Your task to perform on an android device: change notifications settings Image 0: 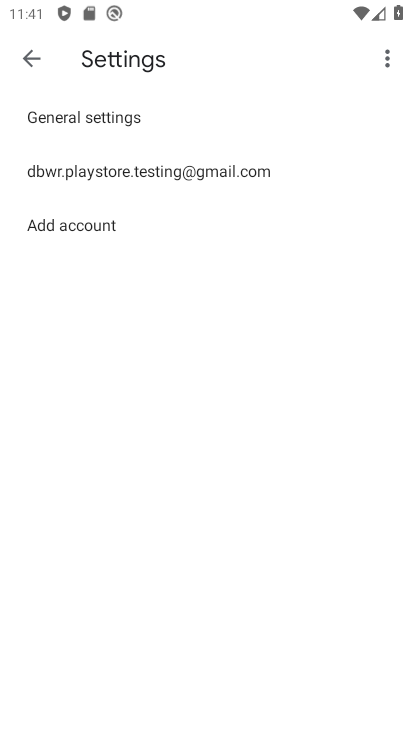
Step 0: press home button
Your task to perform on an android device: change notifications settings Image 1: 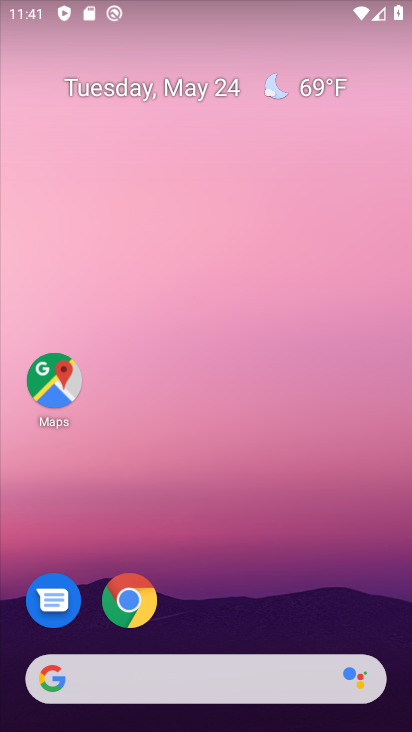
Step 1: drag from (358, 616) to (373, 251)
Your task to perform on an android device: change notifications settings Image 2: 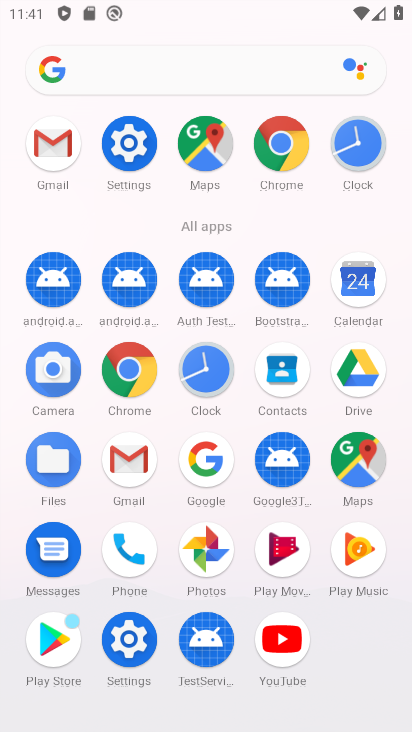
Step 2: click (143, 145)
Your task to perform on an android device: change notifications settings Image 3: 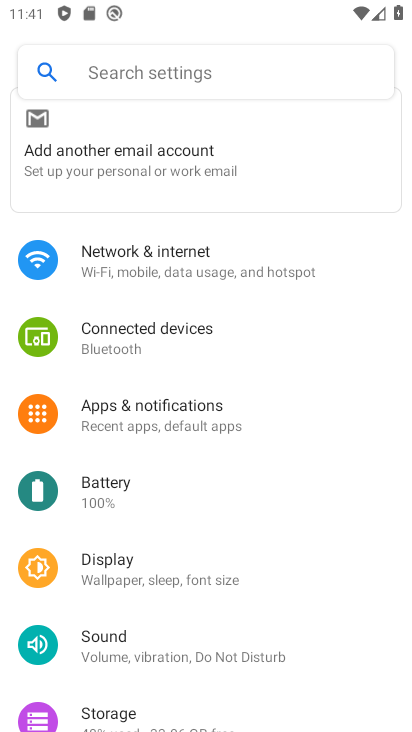
Step 3: drag from (348, 568) to (349, 471)
Your task to perform on an android device: change notifications settings Image 4: 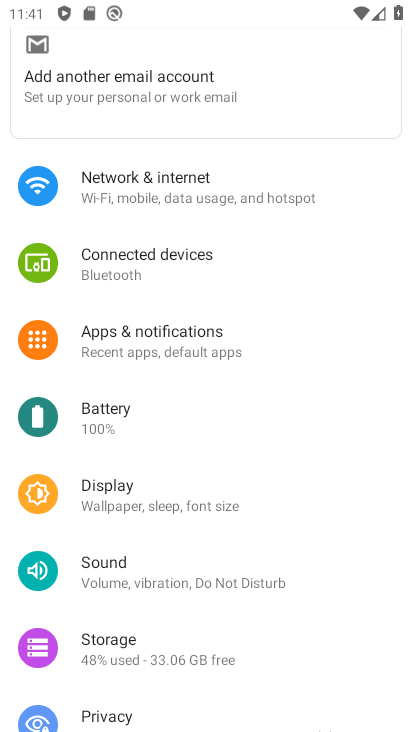
Step 4: drag from (356, 615) to (357, 494)
Your task to perform on an android device: change notifications settings Image 5: 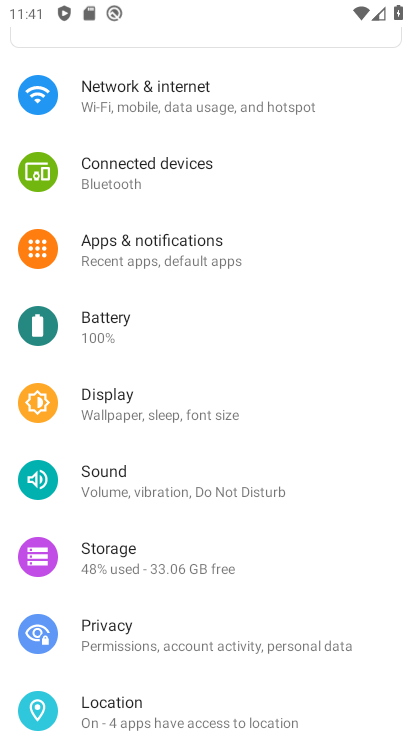
Step 5: drag from (353, 554) to (363, 426)
Your task to perform on an android device: change notifications settings Image 6: 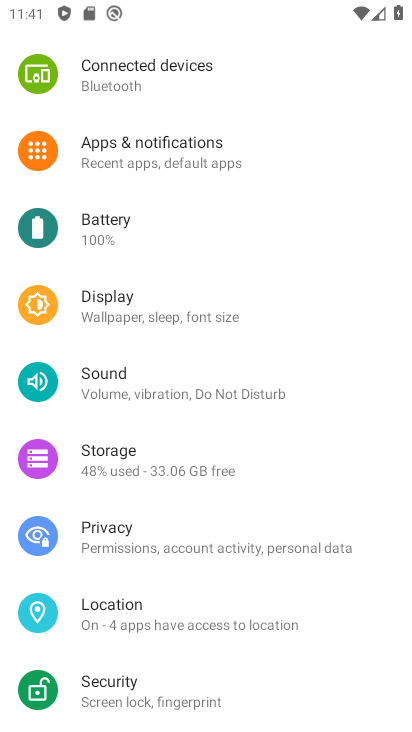
Step 6: drag from (356, 609) to (369, 459)
Your task to perform on an android device: change notifications settings Image 7: 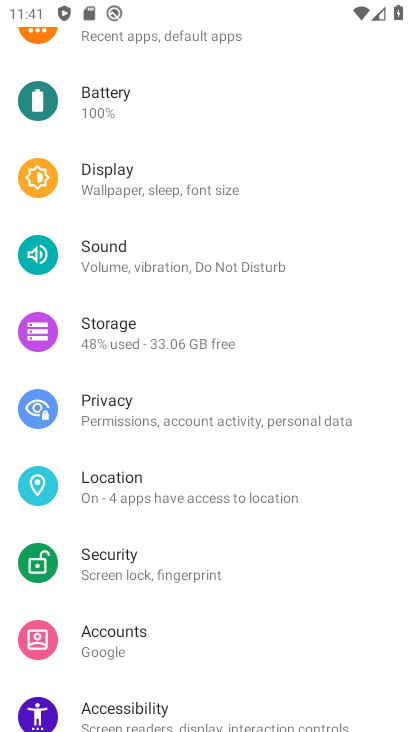
Step 7: drag from (345, 617) to (349, 430)
Your task to perform on an android device: change notifications settings Image 8: 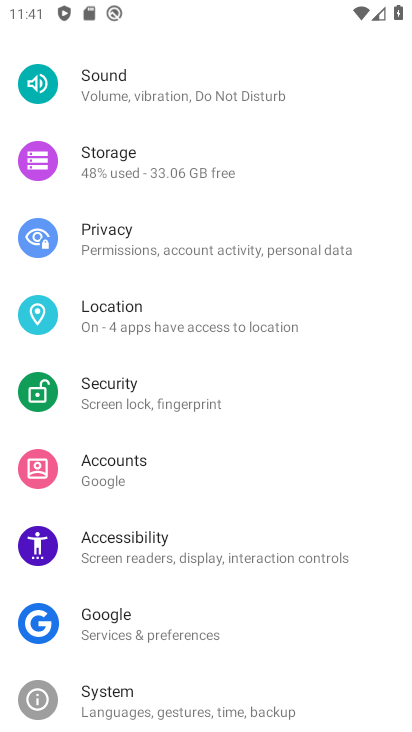
Step 8: drag from (359, 643) to (363, 485)
Your task to perform on an android device: change notifications settings Image 9: 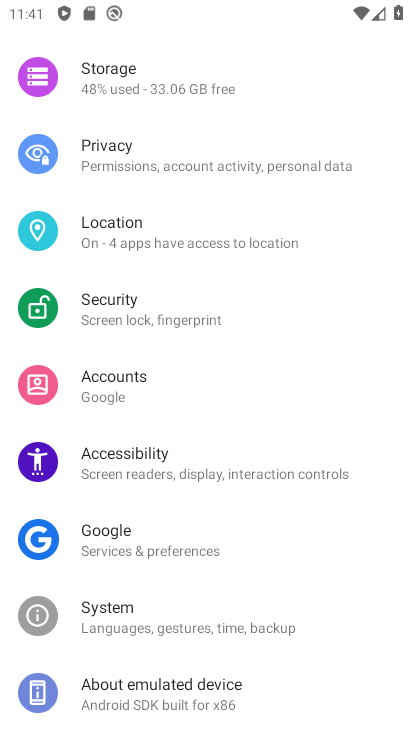
Step 9: drag from (355, 670) to (368, 508)
Your task to perform on an android device: change notifications settings Image 10: 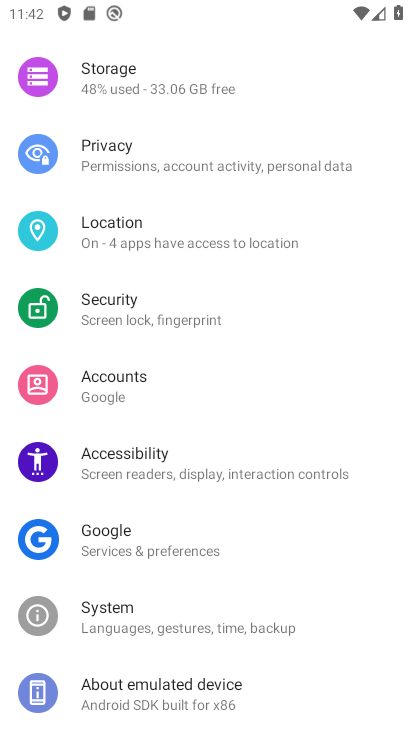
Step 10: drag from (352, 380) to (352, 510)
Your task to perform on an android device: change notifications settings Image 11: 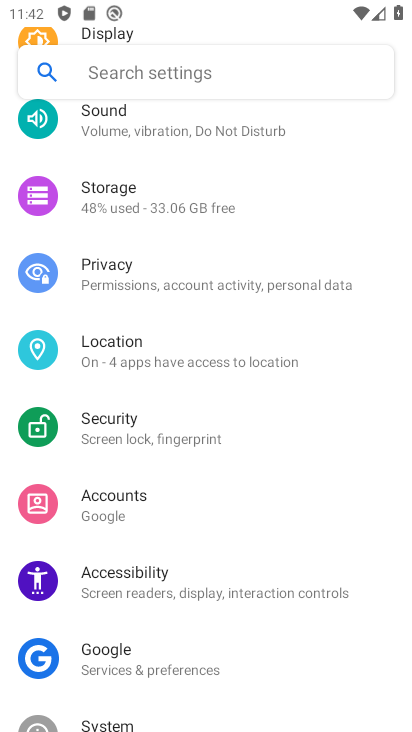
Step 11: drag from (360, 382) to (353, 496)
Your task to perform on an android device: change notifications settings Image 12: 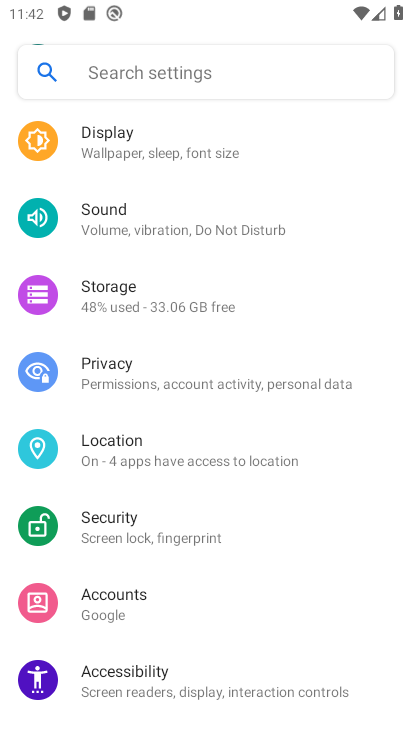
Step 12: drag from (366, 342) to (369, 490)
Your task to perform on an android device: change notifications settings Image 13: 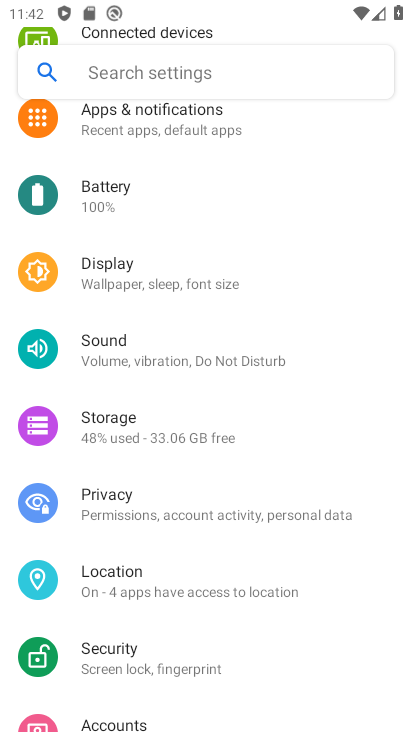
Step 13: drag from (376, 341) to (362, 473)
Your task to perform on an android device: change notifications settings Image 14: 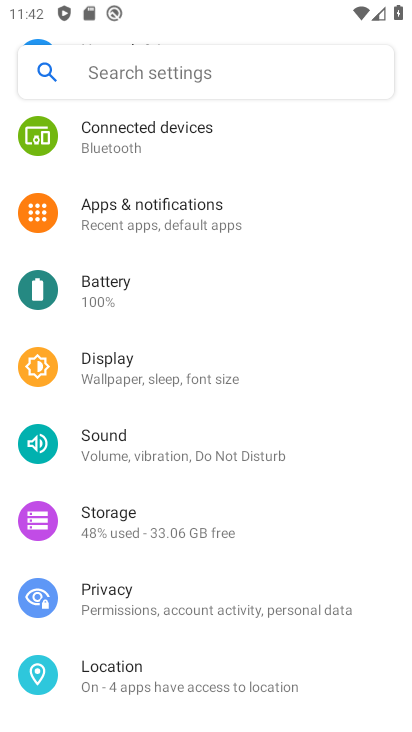
Step 14: drag from (346, 305) to (342, 431)
Your task to perform on an android device: change notifications settings Image 15: 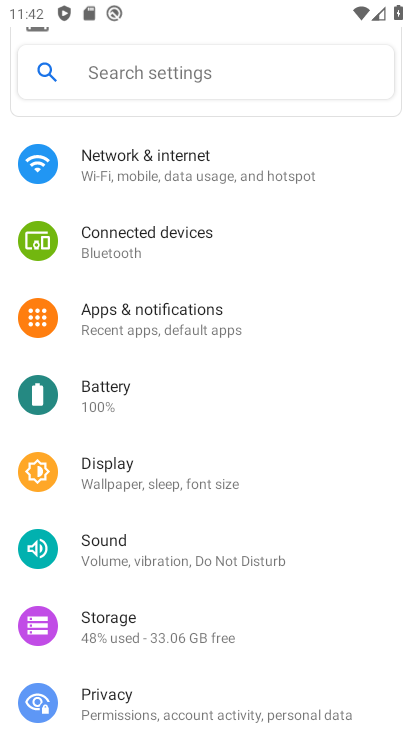
Step 15: drag from (335, 289) to (334, 392)
Your task to perform on an android device: change notifications settings Image 16: 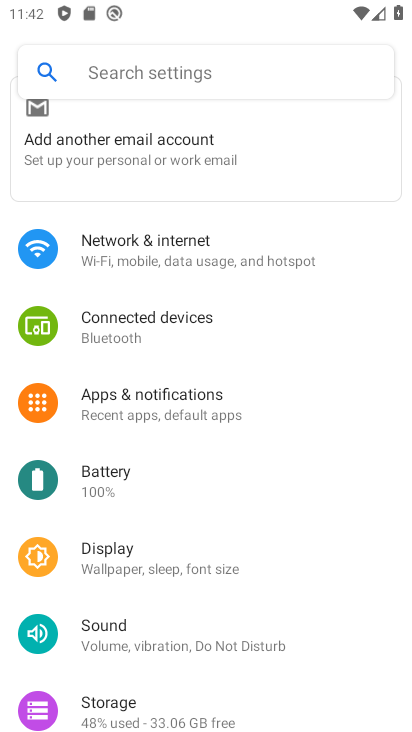
Step 16: drag from (349, 248) to (349, 363)
Your task to perform on an android device: change notifications settings Image 17: 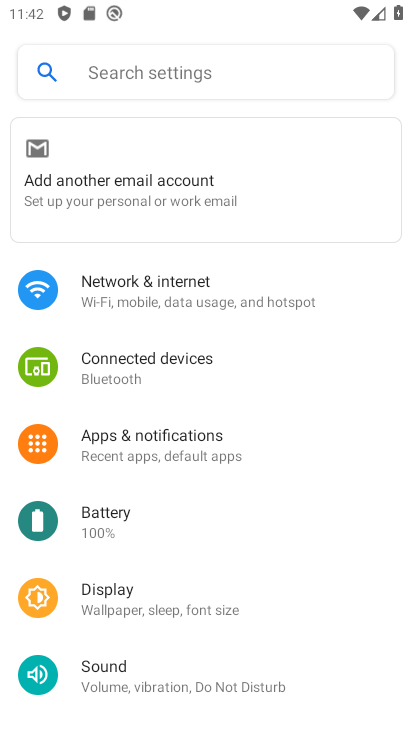
Step 17: click (257, 467)
Your task to perform on an android device: change notifications settings Image 18: 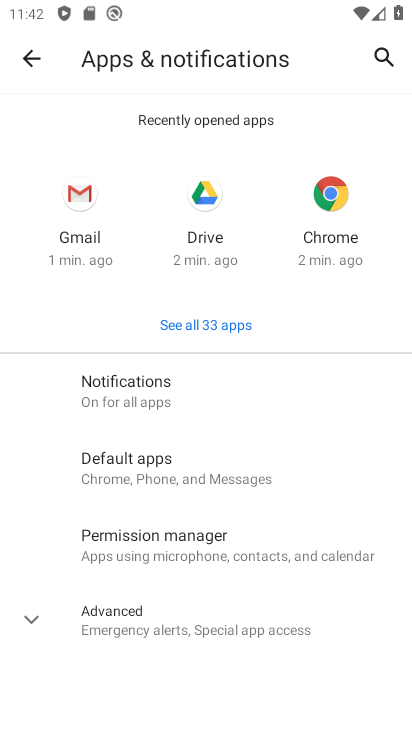
Step 18: click (155, 400)
Your task to perform on an android device: change notifications settings Image 19: 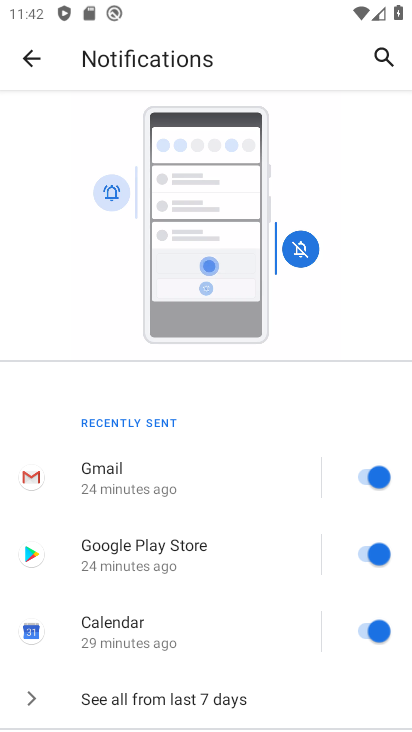
Step 19: drag from (273, 568) to (275, 413)
Your task to perform on an android device: change notifications settings Image 20: 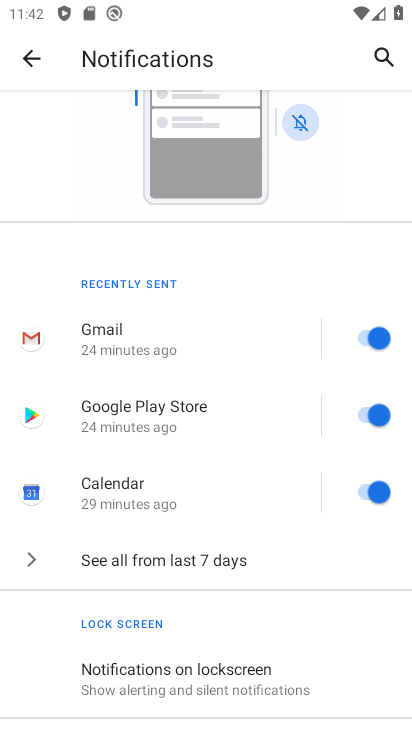
Step 20: drag from (276, 581) to (281, 504)
Your task to perform on an android device: change notifications settings Image 21: 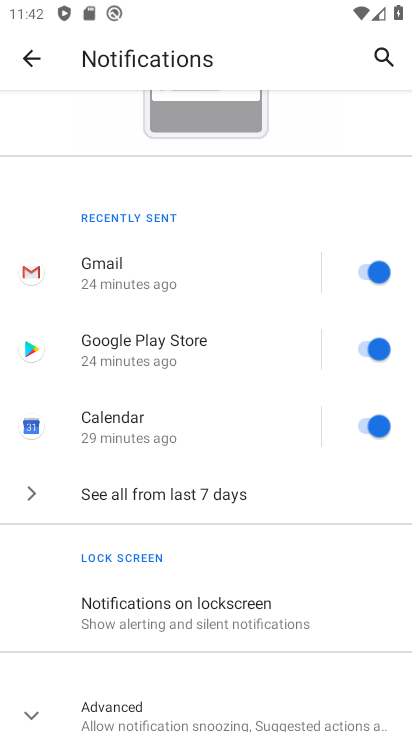
Step 21: click (376, 433)
Your task to perform on an android device: change notifications settings Image 22: 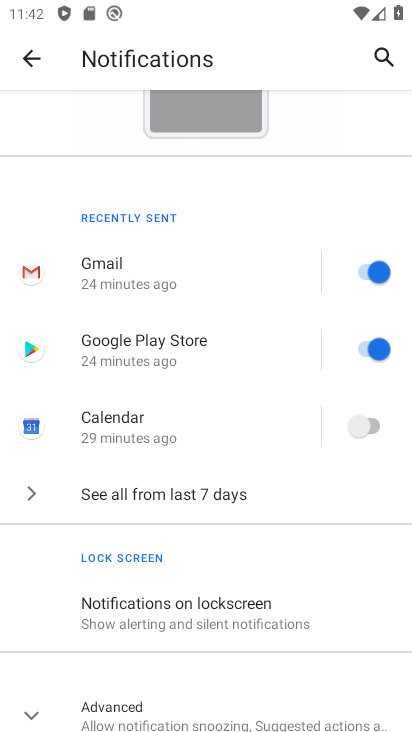
Step 22: click (376, 355)
Your task to perform on an android device: change notifications settings Image 23: 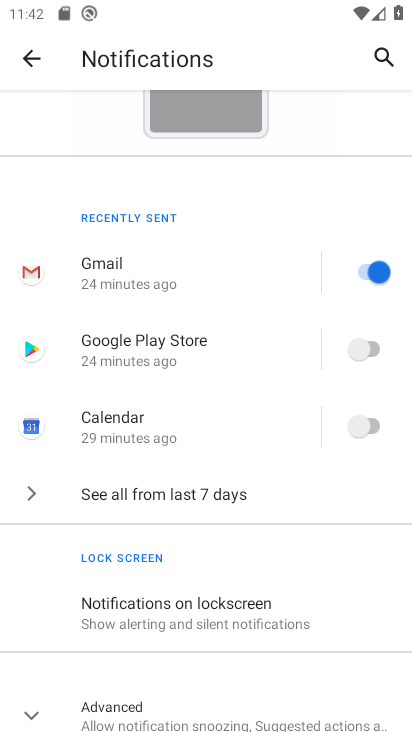
Step 23: click (363, 271)
Your task to perform on an android device: change notifications settings Image 24: 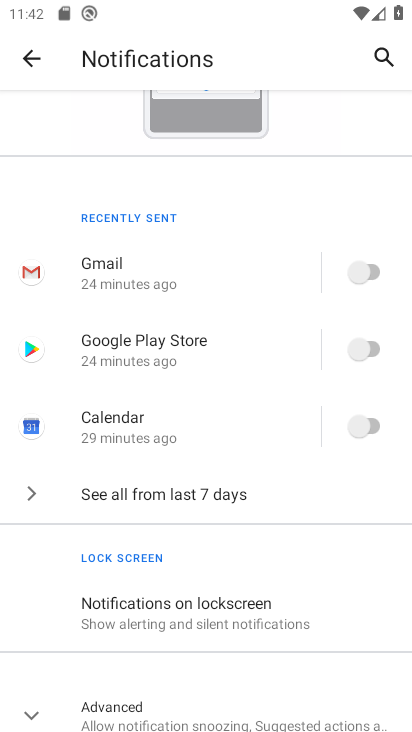
Step 24: task complete